Your task to perform on an android device: see sites visited before in the chrome app Image 0: 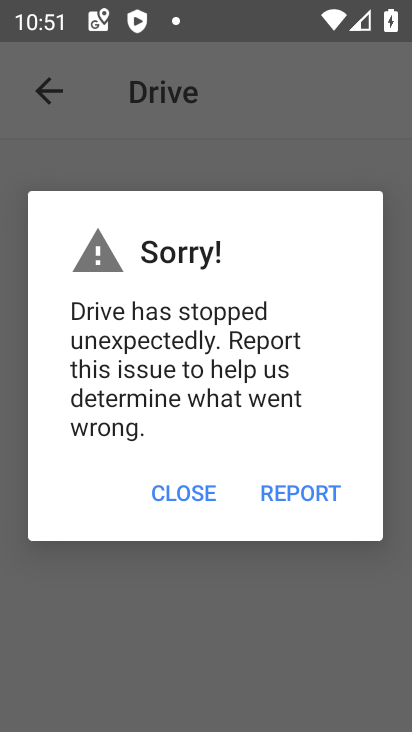
Step 0: press home button
Your task to perform on an android device: see sites visited before in the chrome app Image 1: 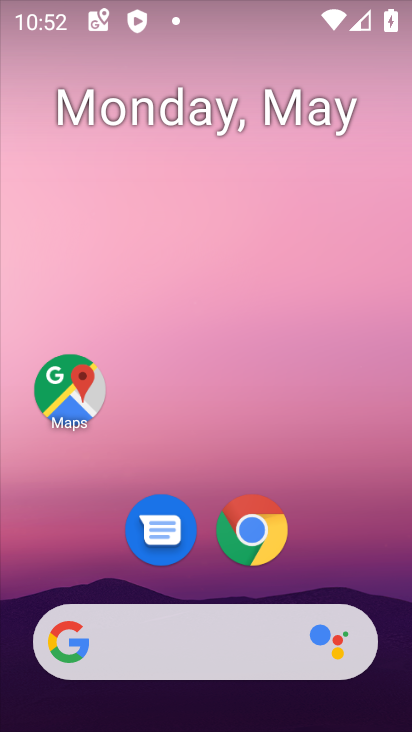
Step 1: click (255, 527)
Your task to perform on an android device: see sites visited before in the chrome app Image 2: 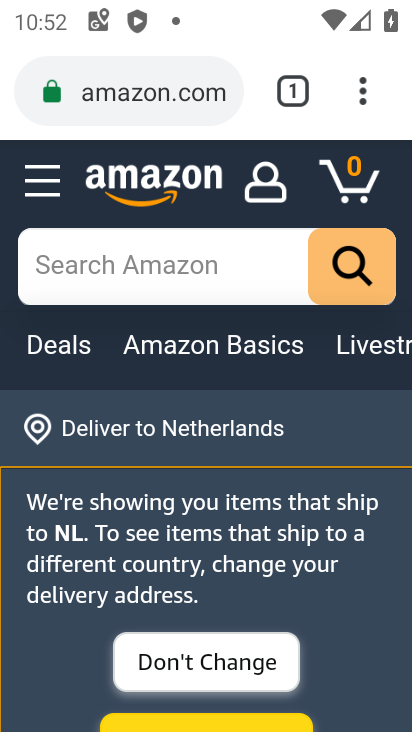
Step 2: click (361, 88)
Your task to perform on an android device: see sites visited before in the chrome app Image 3: 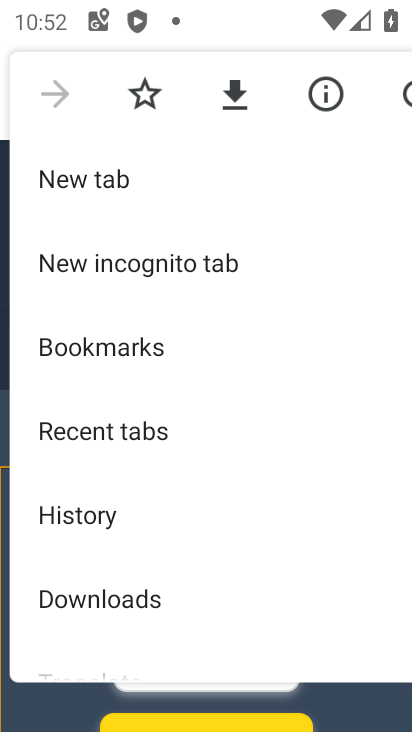
Step 3: click (100, 519)
Your task to perform on an android device: see sites visited before in the chrome app Image 4: 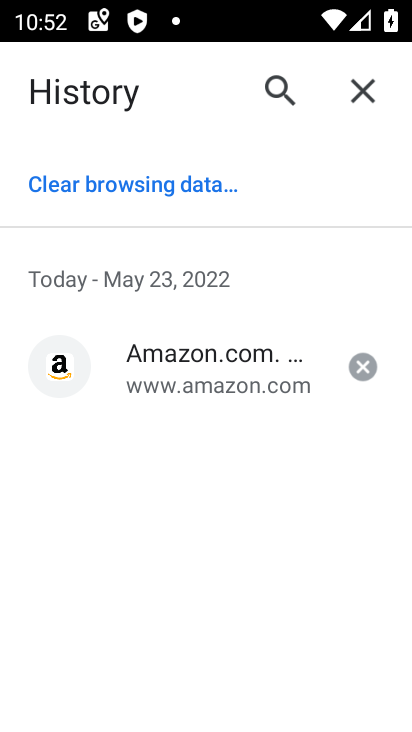
Step 4: task complete